Your task to perform on an android device: Clear the cart on newegg. Add lg ultragear to the cart on newegg Image 0: 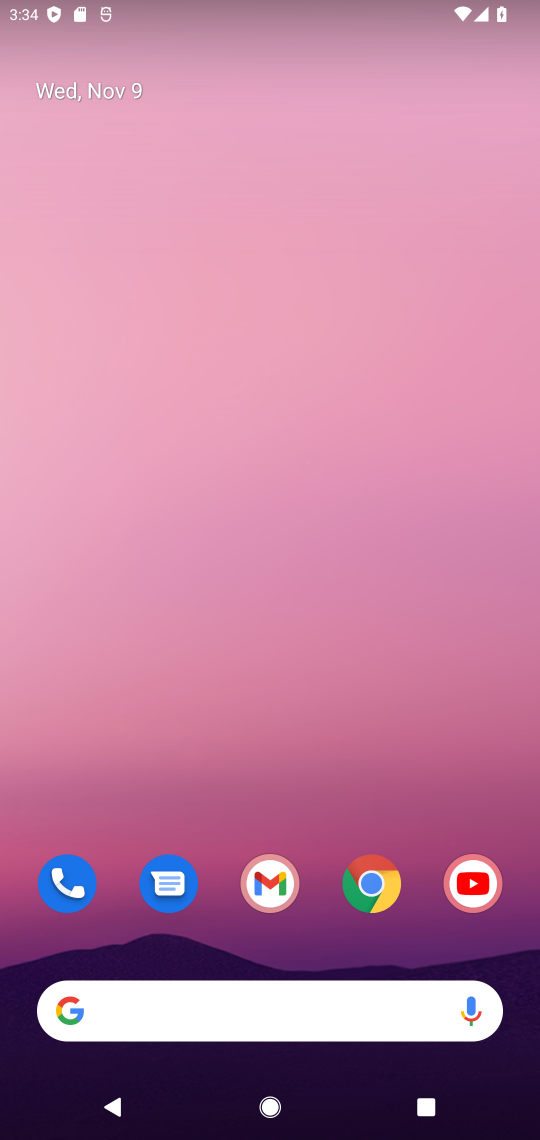
Step 0: click (378, 879)
Your task to perform on an android device: Clear the cart on newegg. Add lg ultragear to the cart on newegg Image 1: 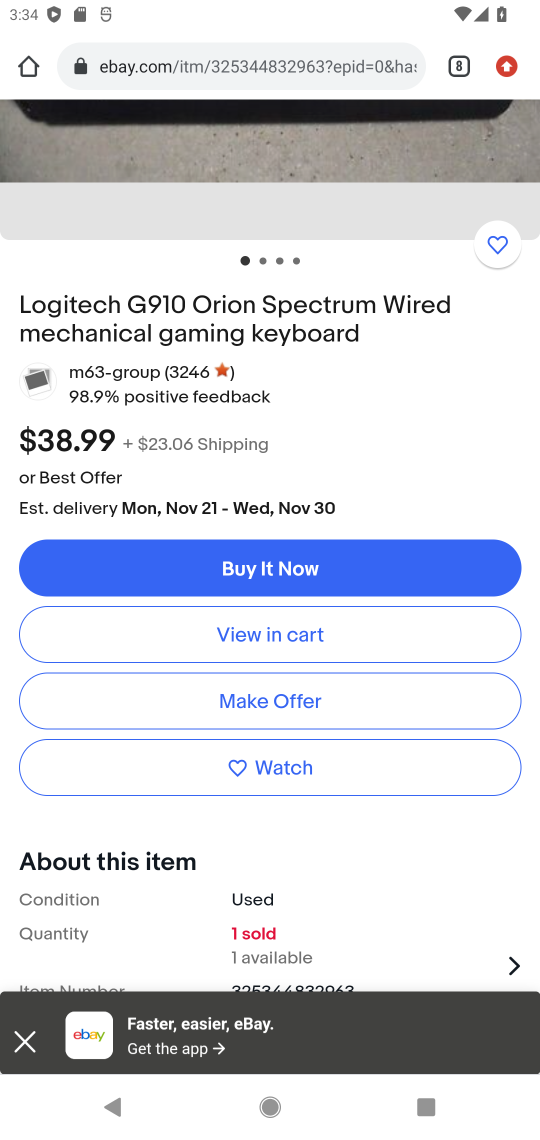
Step 1: click (463, 67)
Your task to perform on an android device: Clear the cart on newegg. Add lg ultragear to the cart on newegg Image 2: 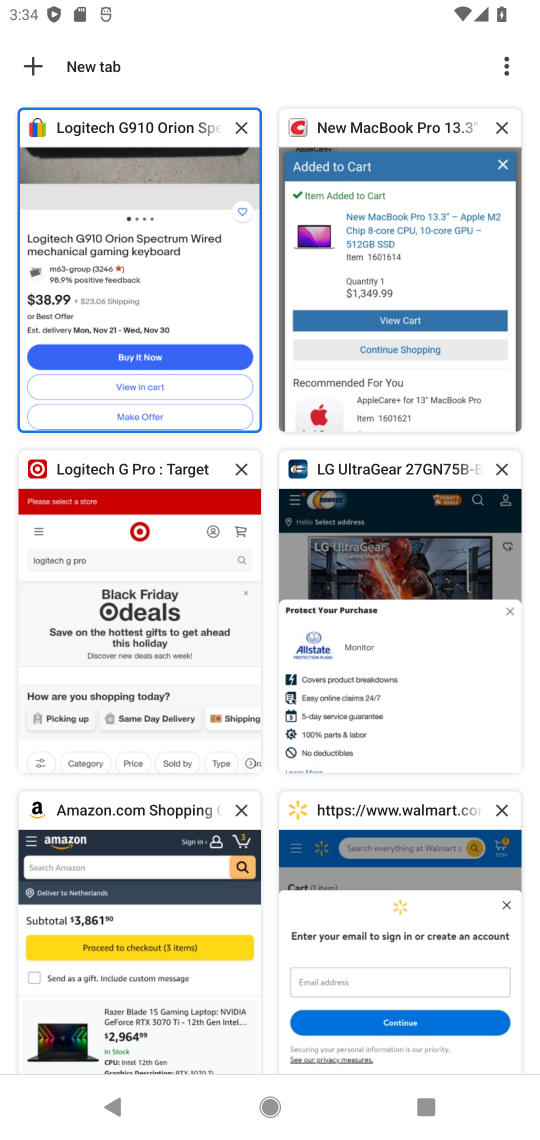
Step 2: click (338, 686)
Your task to perform on an android device: Clear the cart on newegg. Add lg ultragear to the cart on newegg Image 3: 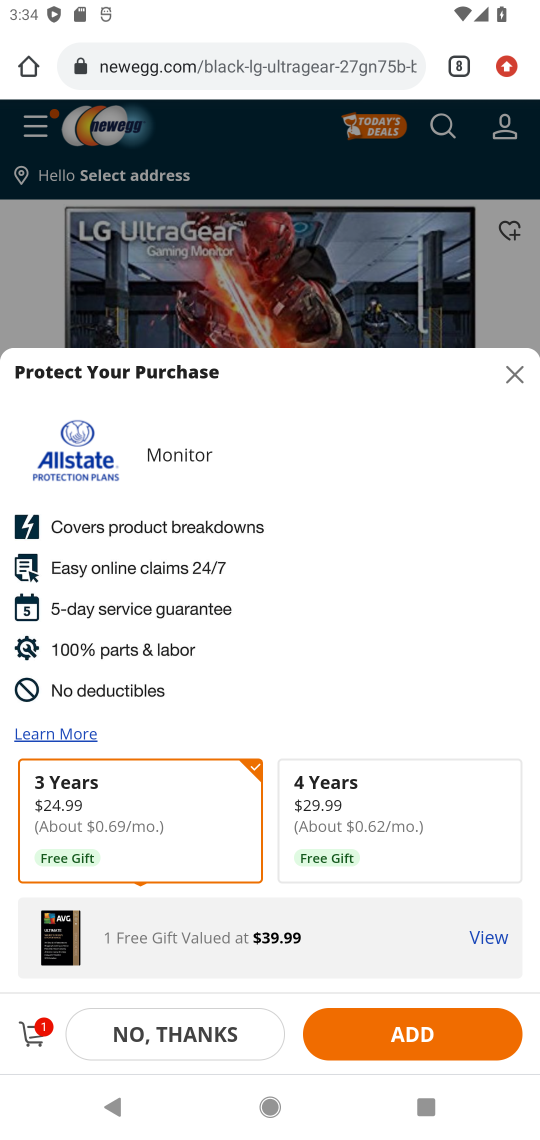
Step 3: click (515, 365)
Your task to perform on an android device: Clear the cart on newegg. Add lg ultragear to the cart on newegg Image 4: 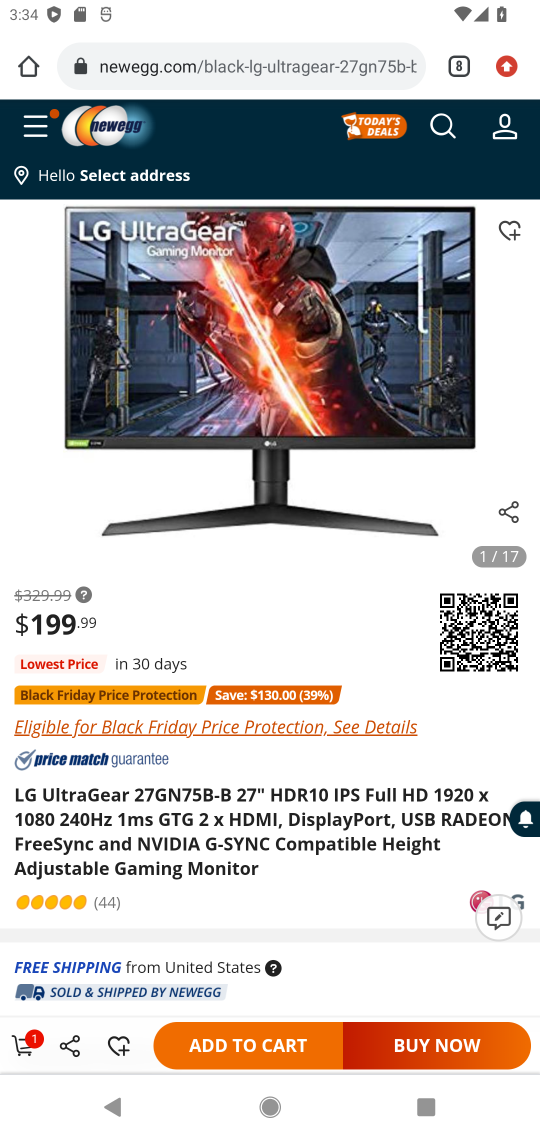
Step 4: click (444, 138)
Your task to perform on an android device: Clear the cart on newegg. Add lg ultragear to the cart on newegg Image 5: 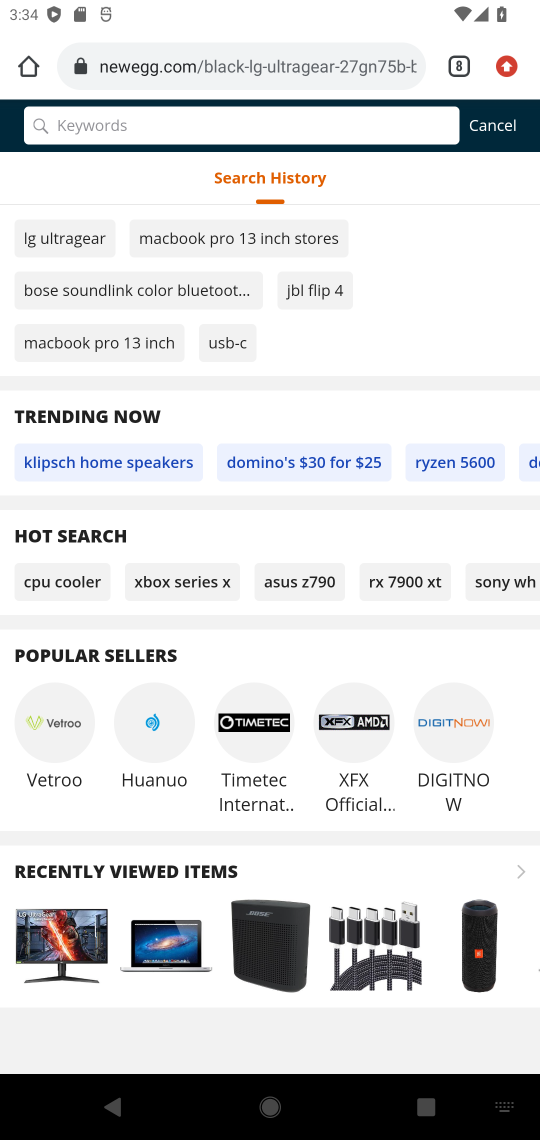
Step 5: type "lg ultragear"
Your task to perform on an android device: Clear the cart on newegg. Add lg ultragear to the cart on newegg Image 6: 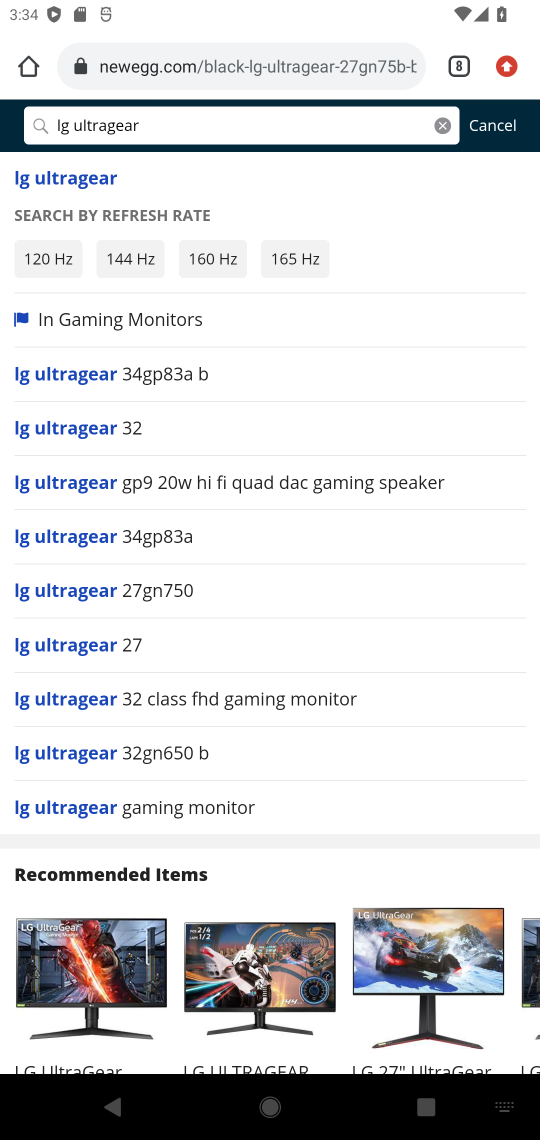
Step 6: click (76, 175)
Your task to perform on an android device: Clear the cart on newegg. Add lg ultragear to the cart on newegg Image 7: 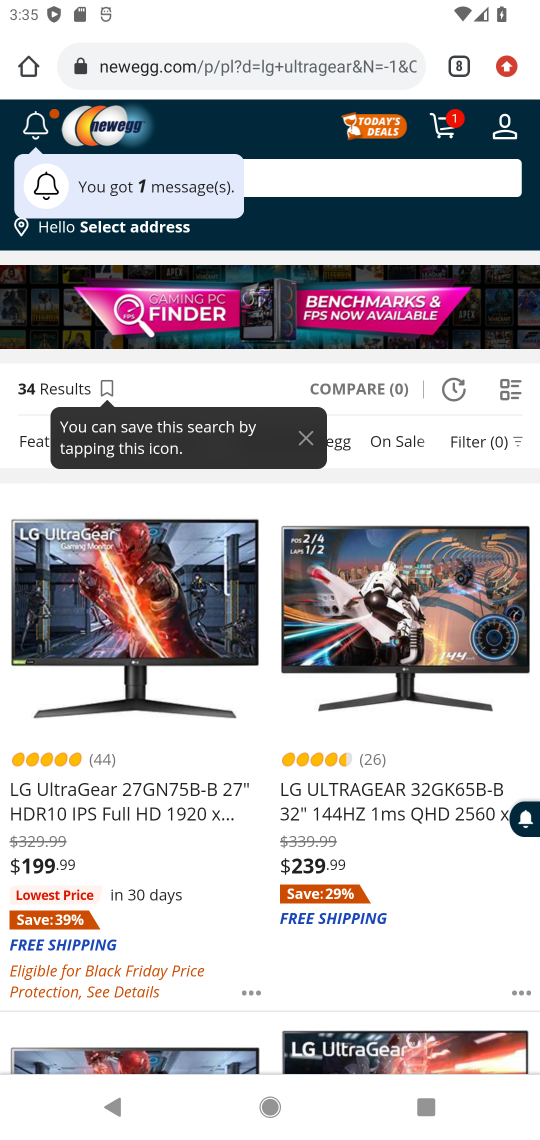
Step 7: click (92, 805)
Your task to perform on an android device: Clear the cart on newegg. Add lg ultragear to the cart on newegg Image 8: 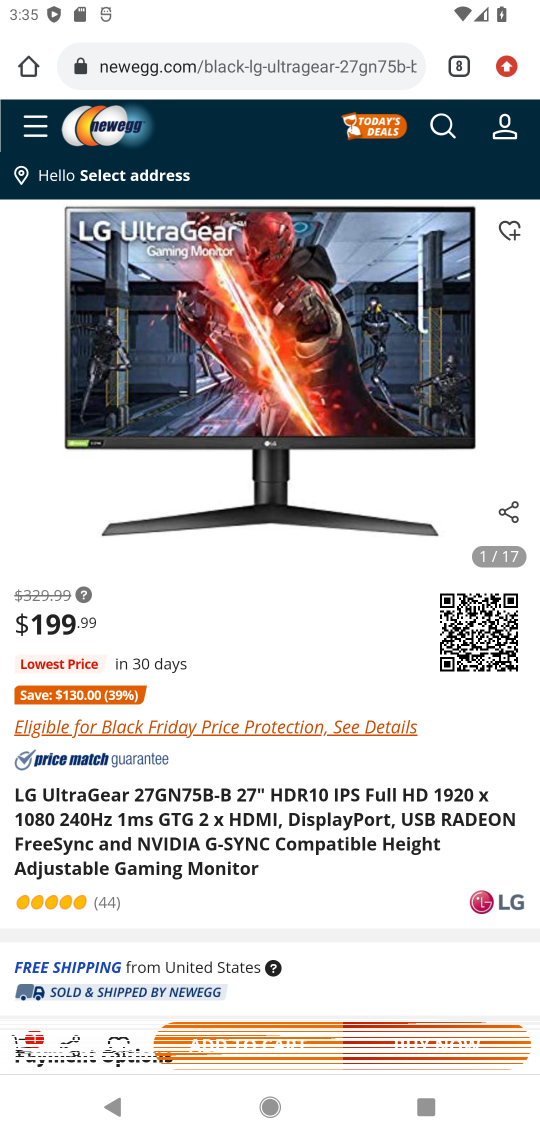
Step 8: click (92, 805)
Your task to perform on an android device: Clear the cart on newegg. Add lg ultragear to the cart on newegg Image 9: 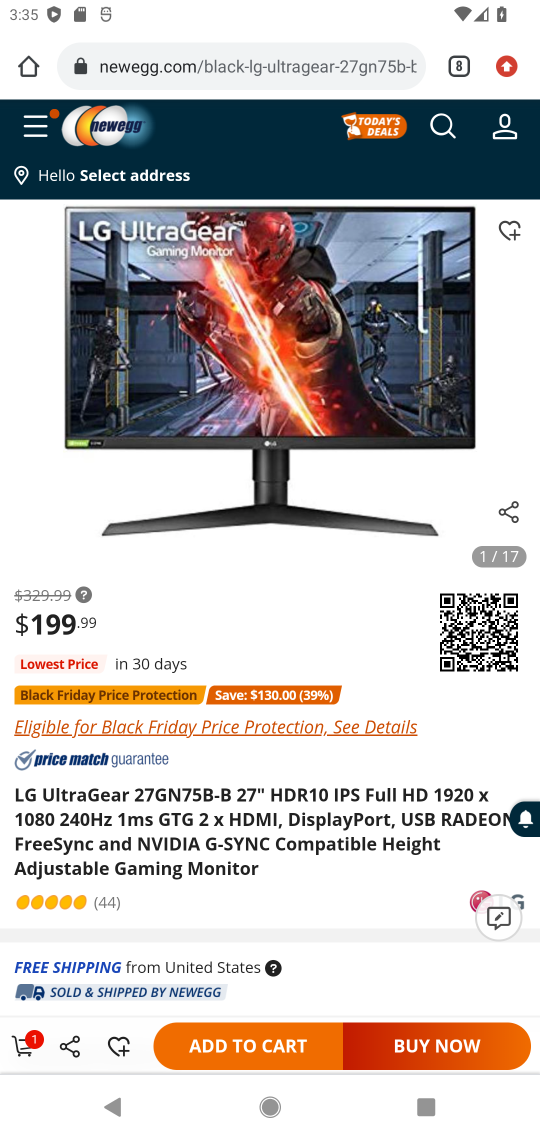
Step 9: click (246, 1043)
Your task to perform on an android device: Clear the cart on newegg. Add lg ultragear to the cart on newegg Image 10: 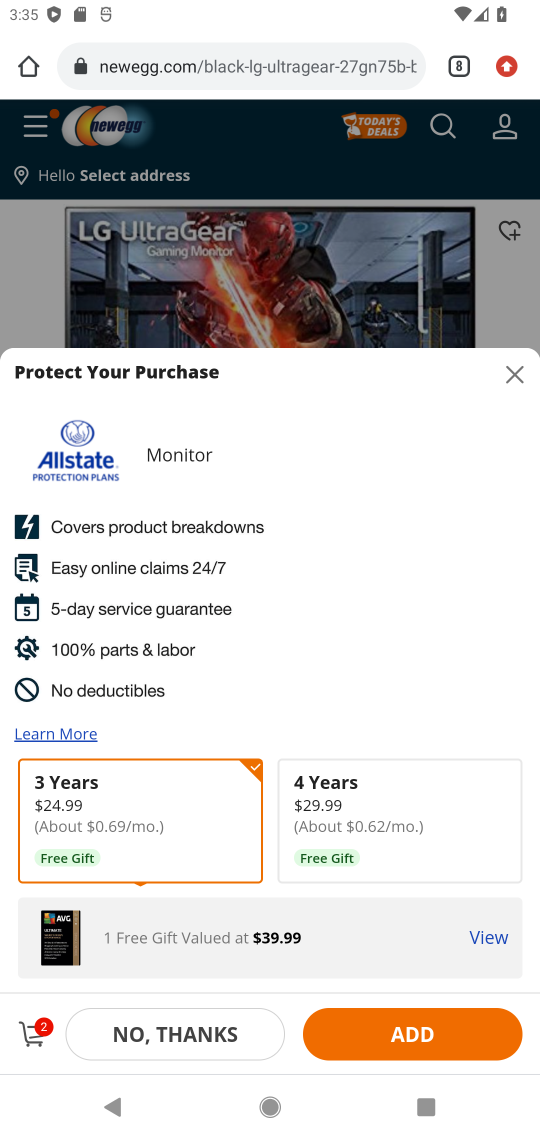
Step 10: click (31, 1038)
Your task to perform on an android device: Clear the cart on newegg. Add lg ultragear to the cart on newegg Image 11: 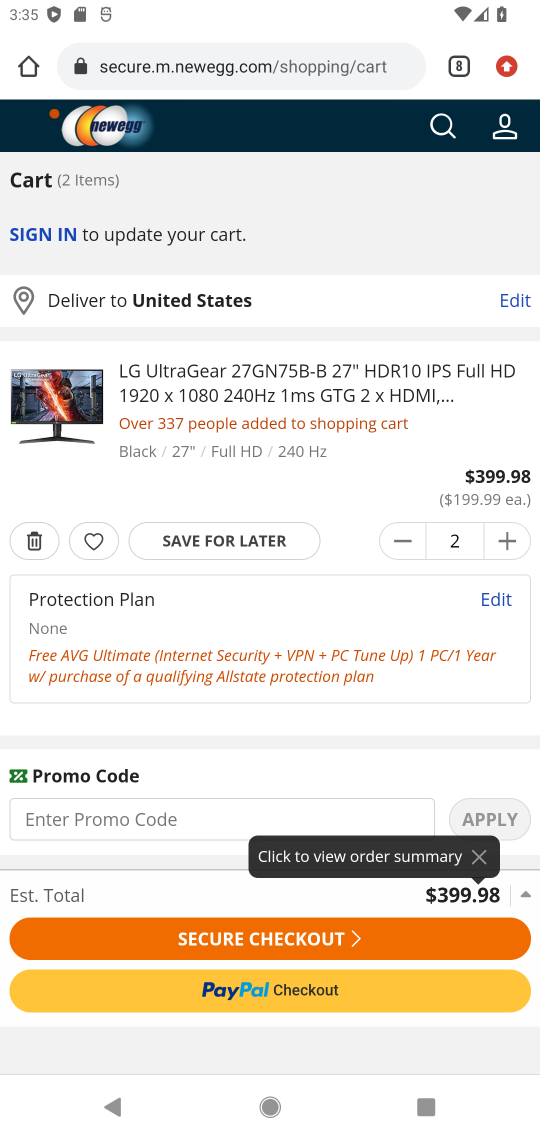
Step 11: click (252, 938)
Your task to perform on an android device: Clear the cart on newegg. Add lg ultragear to the cart on newegg Image 12: 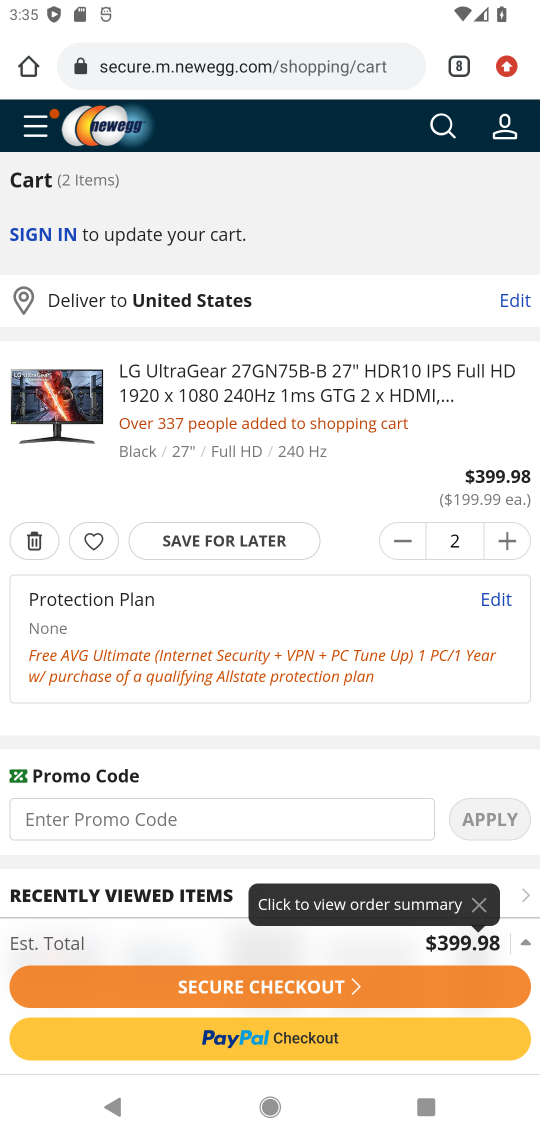
Step 12: click (252, 938)
Your task to perform on an android device: Clear the cart on newegg. Add lg ultragear to the cart on newegg Image 13: 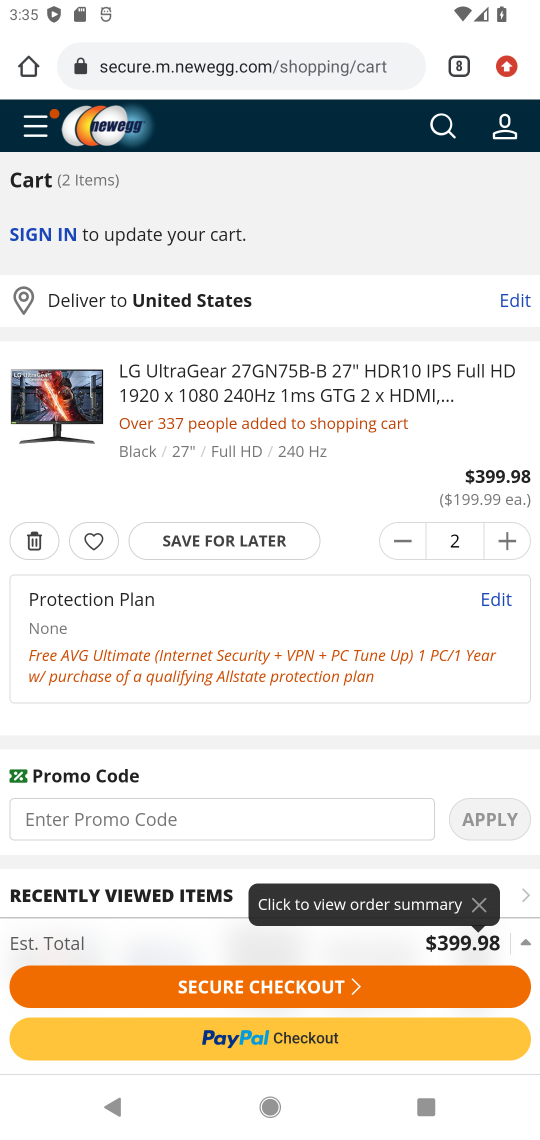
Step 13: task complete